Your task to perform on an android device: add a contact in the contacts app Image 0: 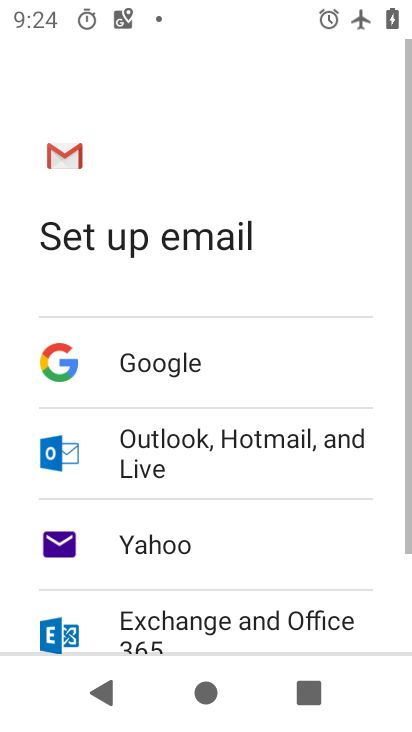
Step 0: press home button
Your task to perform on an android device: add a contact in the contacts app Image 1: 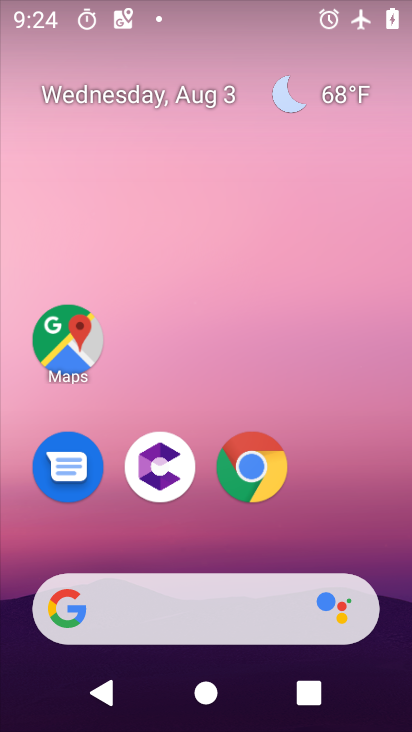
Step 1: drag from (334, 476) to (274, 64)
Your task to perform on an android device: add a contact in the contacts app Image 2: 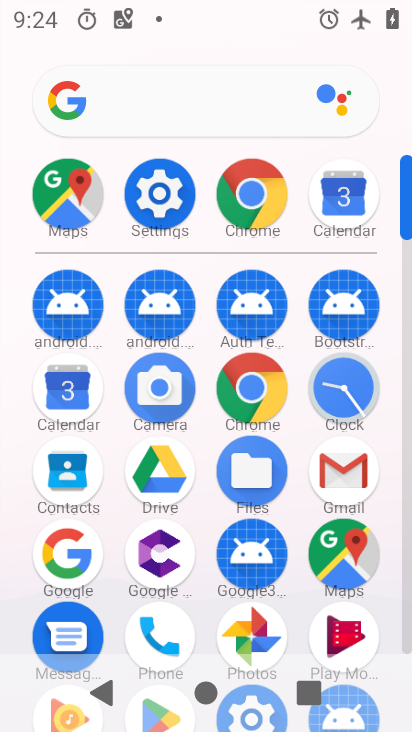
Step 2: click (74, 461)
Your task to perform on an android device: add a contact in the contacts app Image 3: 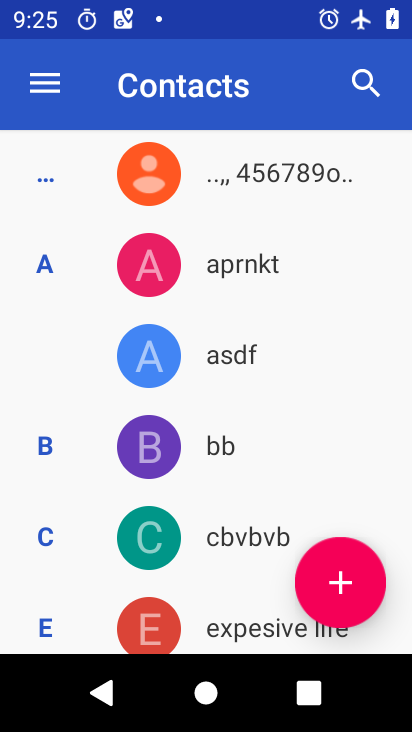
Step 3: click (342, 554)
Your task to perform on an android device: add a contact in the contacts app Image 4: 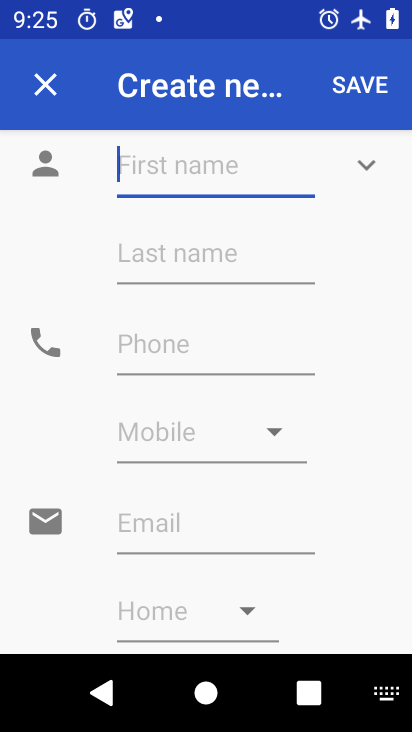
Step 4: type "live life with peace"
Your task to perform on an android device: add a contact in the contacts app Image 5: 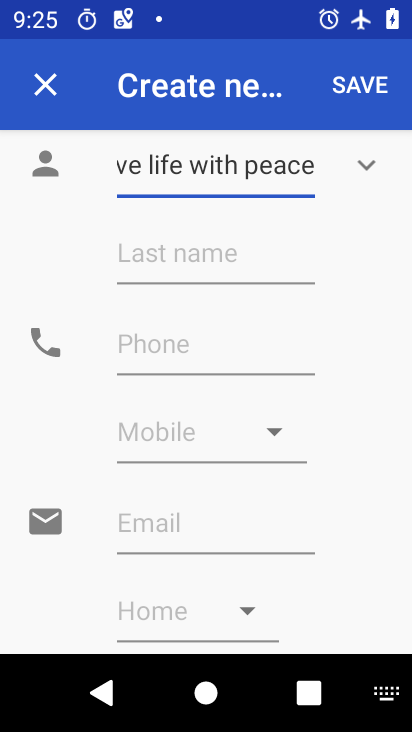
Step 5: click (379, 78)
Your task to perform on an android device: add a contact in the contacts app Image 6: 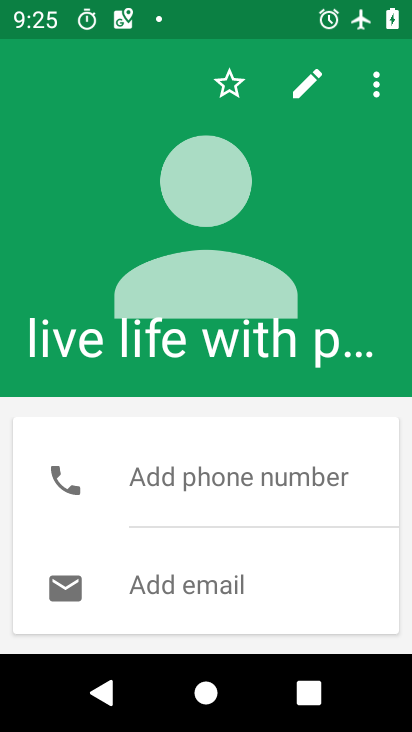
Step 6: task complete